Your task to perform on an android device: turn off wifi Image 0: 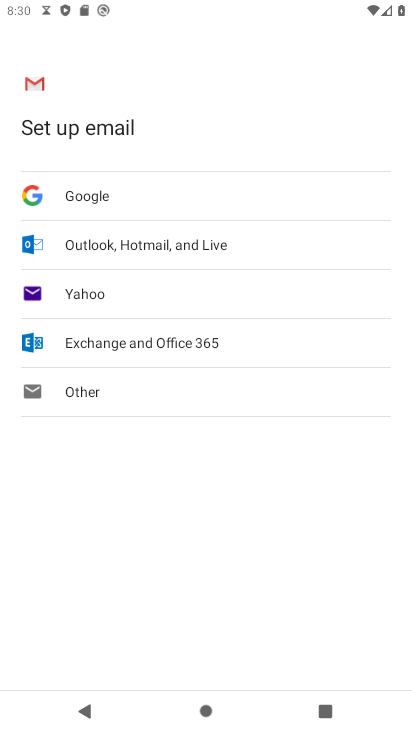
Step 0: press home button
Your task to perform on an android device: turn off wifi Image 1: 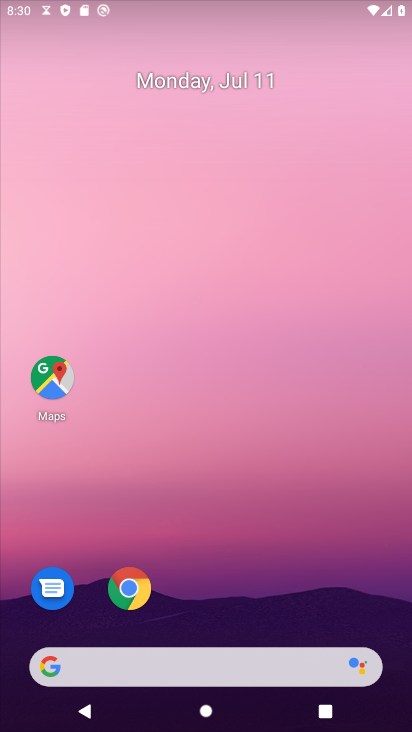
Step 1: click (238, 88)
Your task to perform on an android device: turn off wifi Image 2: 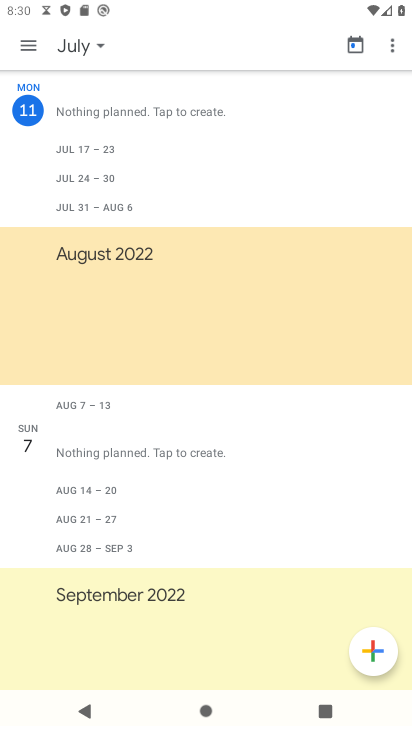
Step 2: press home button
Your task to perform on an android device: turn off wifi Image 3: 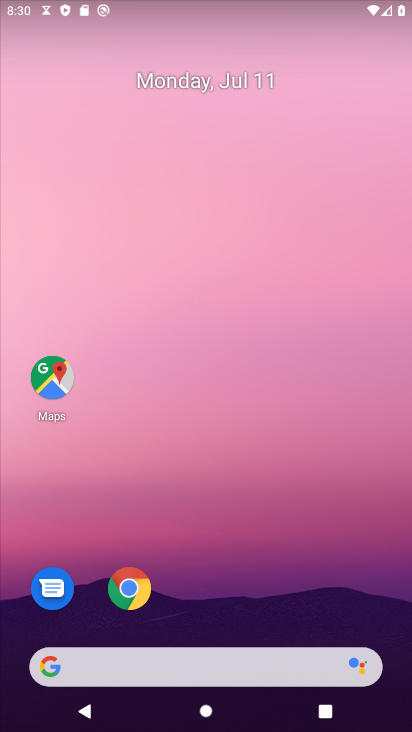
Step 3: drag from (311, 592) to (257, 8)
Your task to perform on an android device: turn off wifi Image 4: 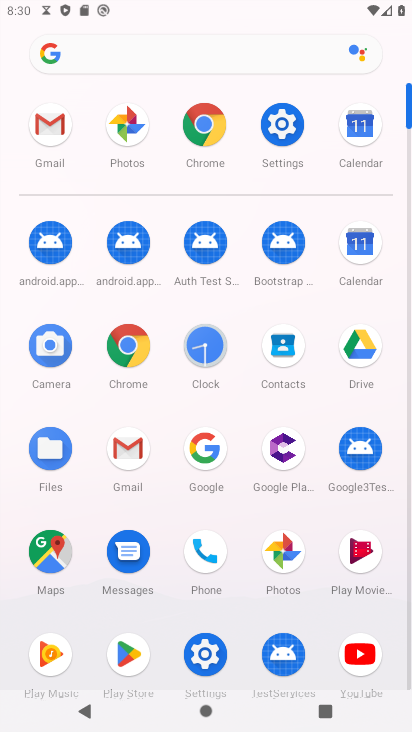
Step 4: click (292, 135)
Your task to perform on an android device: turn off wifi Image 5: 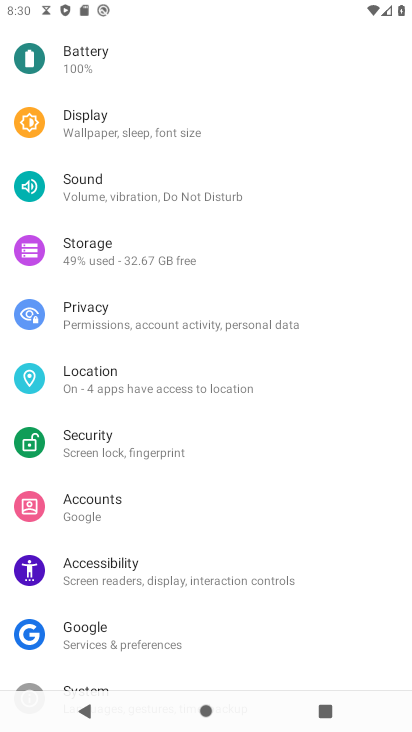
Step 5: drag from (202, 86) to (274, 714)
Your task to perform on an android device: turn off wifi Image 6: 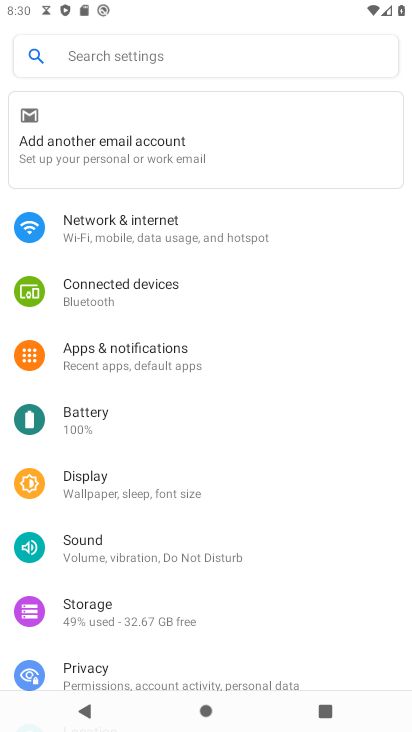
Step 6: click (96, 235)
Your task to perform on an android device: turn off wifi Image 7: 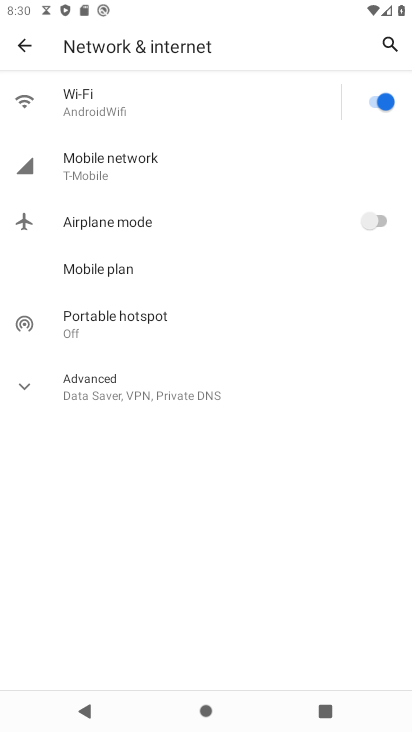
Step 7: click (106, 91)
Your task to perform on an android device: turn off wifi Image 8: 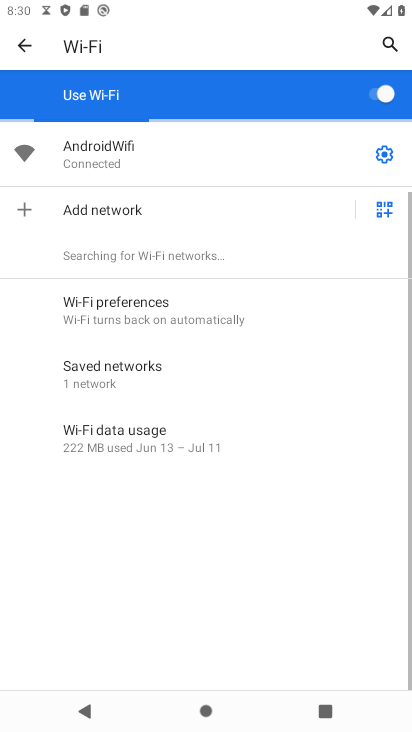
Step 8: click (399, 90)
Your task to perform on an android device: turn off wifi Image 9: 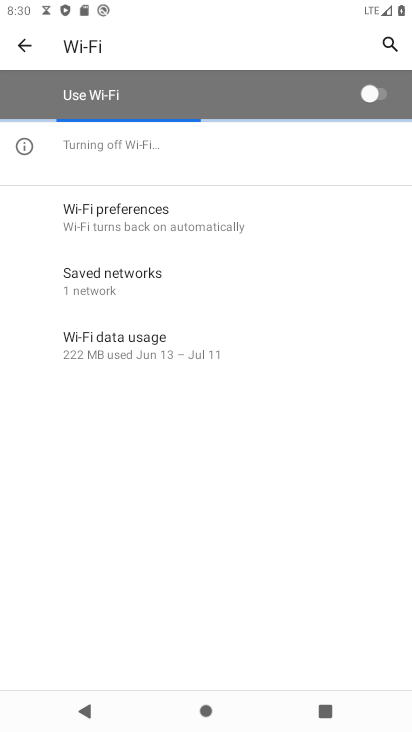
Step 9: task complete